Your task to perform on an android device: Open location settings Image 0: 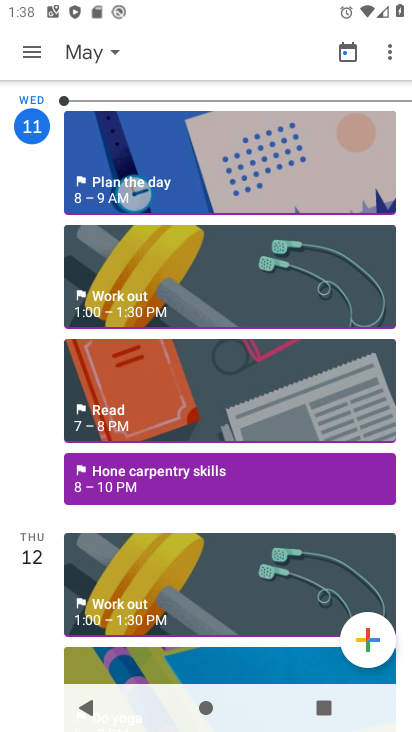
Step 0: press home button
Your task to perform on an android device: Open location settings Image 1: 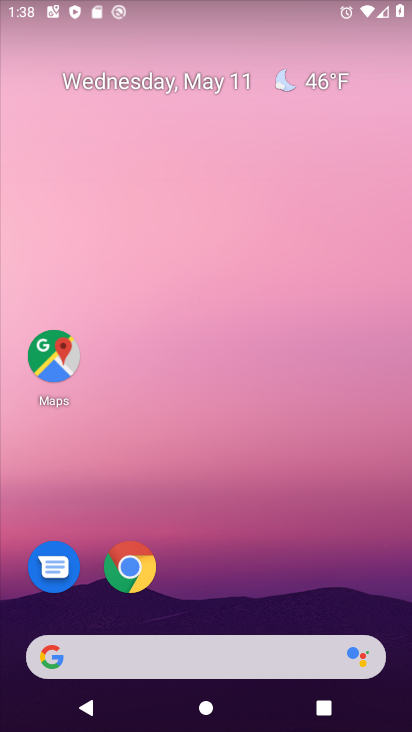
Step 1: drag from (215, 634) to (116, 1)
Your task to perform on an android device: Open location settings Image 2: 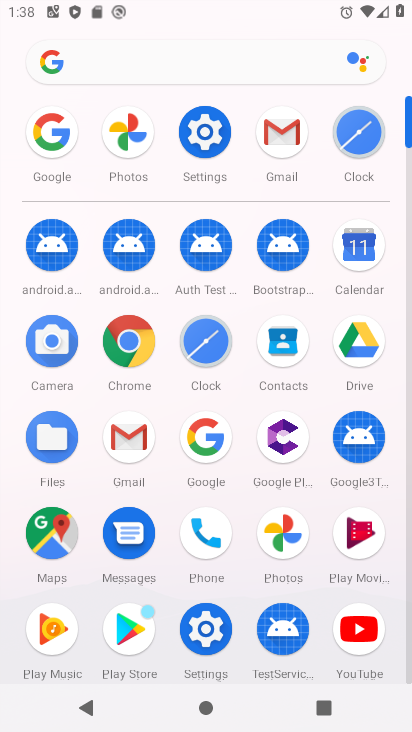
Step 2: click (207, 139)
Your task to perform on an android device: Open location settings Image 3: 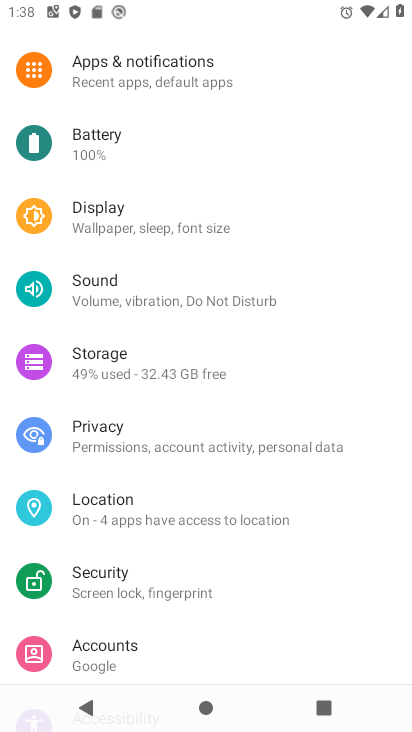
Step 3: click (118, 511)
Your task to perform on an android device: Open location settings Image 4: 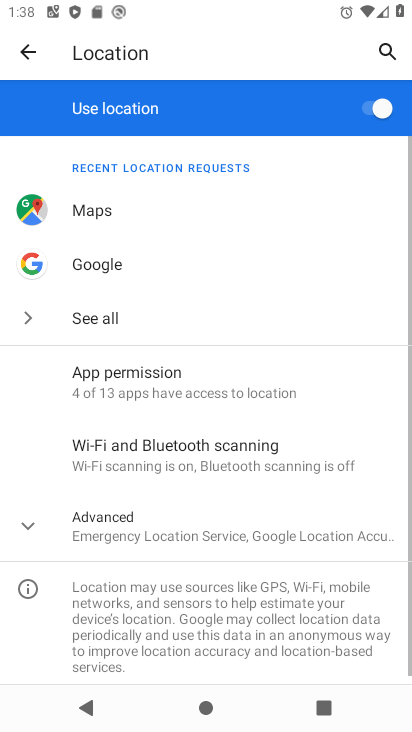
Step 4: click (167, 549)
Your task to perform on an android device: Open location settings Image 5: 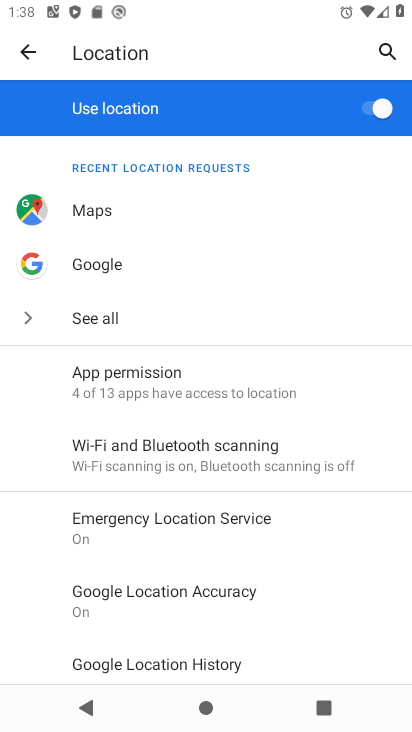
Step 5: task complete